Your task to perform on an android device: turn on notifications settings in the gmail app Image 0: 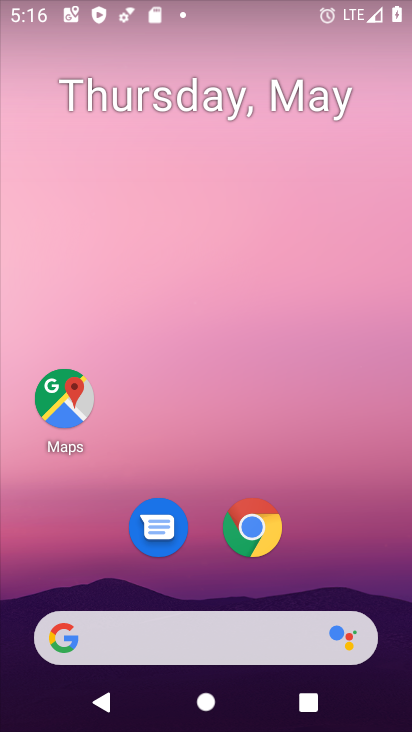
Step 0: drag from (359, 335) to (342, 0)
Your task to perform on an android device: turn on notifications settings in the gmail app Image 1: 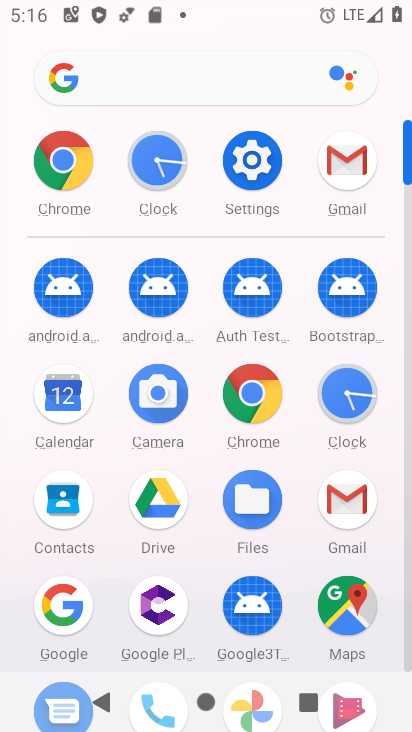
Step 1: click (339, 171)
Your task to perform on an android device: turn on notifications settings in the gmail app Image 2: 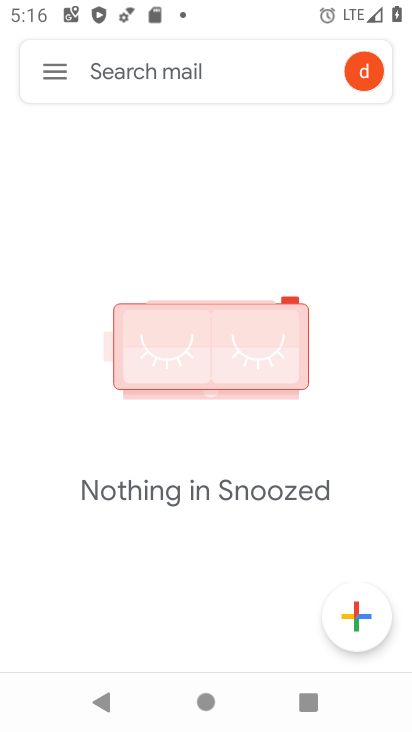
Step 2: click (46, 71)
Your task to perform on an android device: turn on notifications settings in the gmail app Image 3: 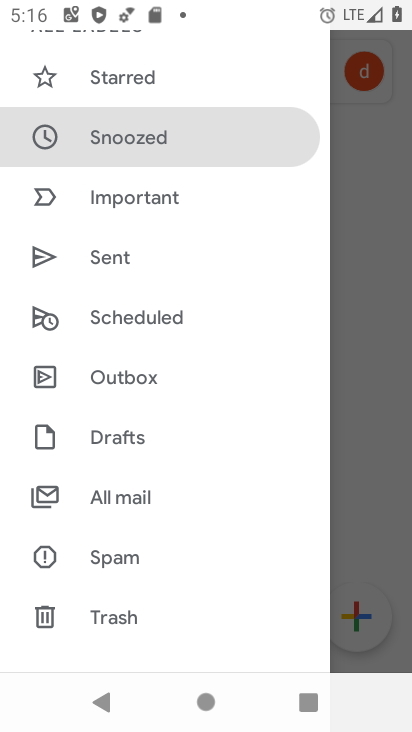
Step 3: drag from (174, 467) to (134, 124)
Your task to perform on an android device: turn on notifications settings in the gmail app Image 4: 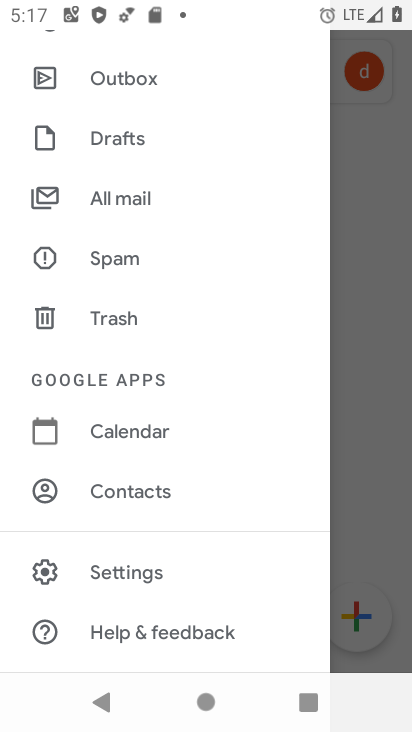
Step 4: click (136, 561)
Your task to perform on an android device: turn on notifications settings in the gmail app Image 5: 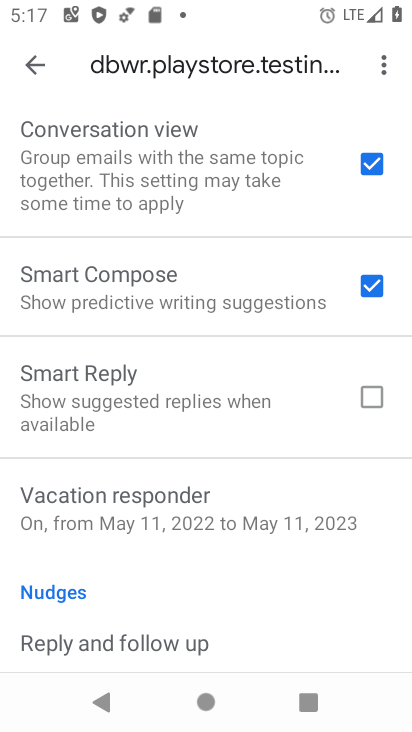
Step 5: drag from (153, 567) to (175, 175)
Your task to perform on an android device: turn on notifications settings in the gmail app Image 6: 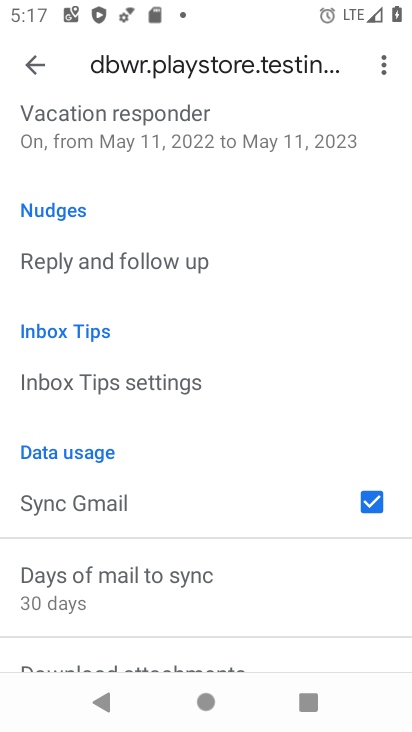
Step 6: drag from (200, 244) to (195, 591)
Your task to perform on an android device: turn on notifications settings in the gmail app Image 7: 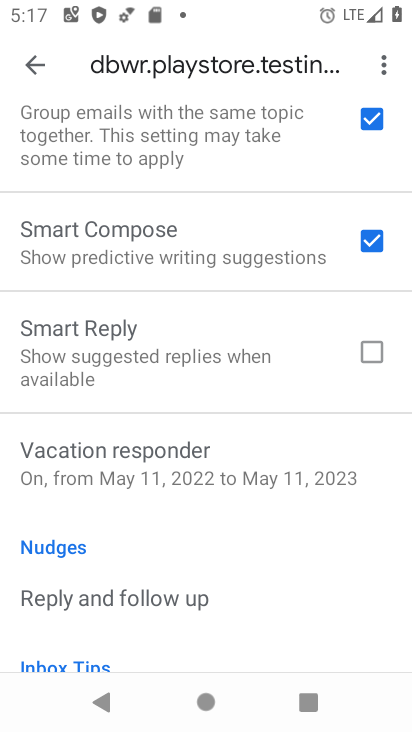
Step 7: drag from (147, 208) to (174, 614)
Your task to perform on an android device: turn on notifications settings in the gmail app Image 8: 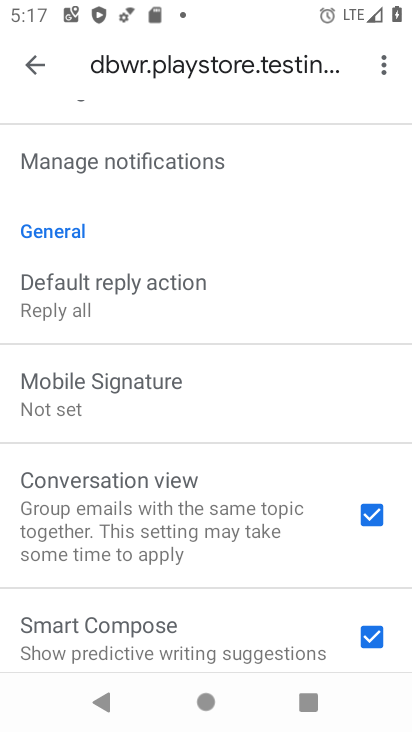
Step 8: drag from (103, 307) to (130, 641)
Your task to perform on an android device: turn on notifications settings in the gmail app Image 9: 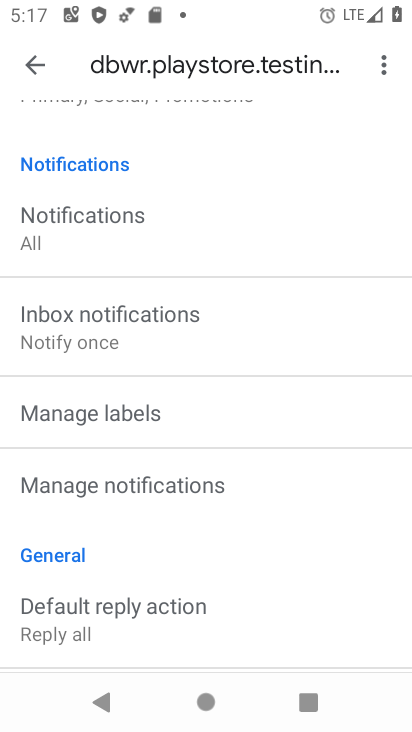
Step 9: drag from (158, 299) to (151, 606)
Your task to perform on an android device: turn on notifications settings in the gmail app Image 10: 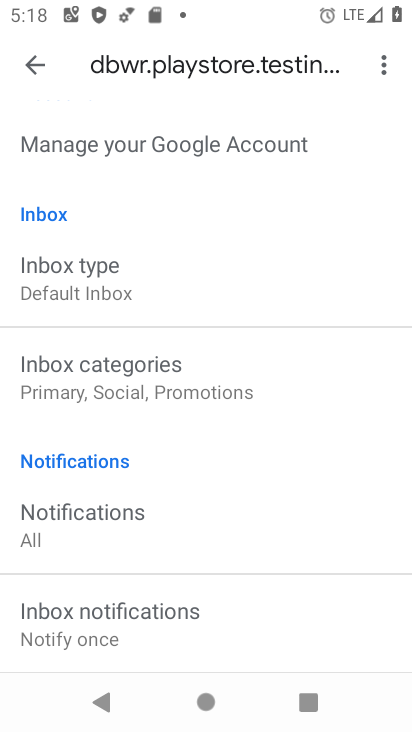
Step 10: click (65, 511)
Your task to perform on an android device: turn on notifications settings in the gmail app Image 11: 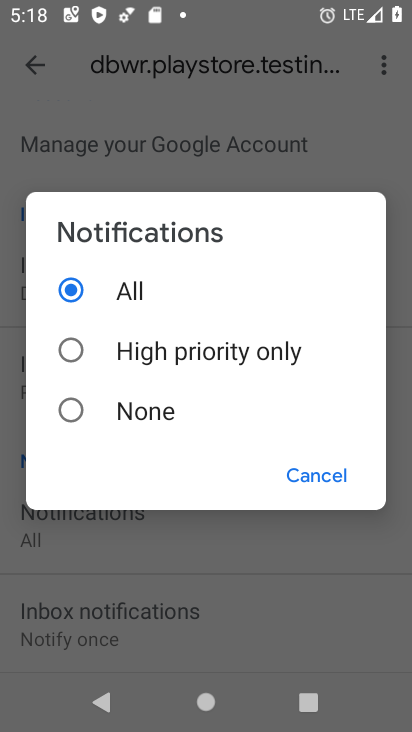
Step 11: click (62, 348)
Your task to perform on an android device: turn on notifications settings in the gmail app Image 12: 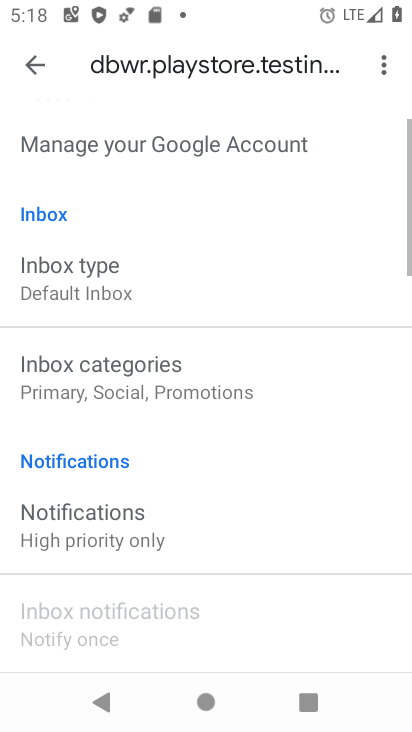
Step 12: task complete